Your task to perform on an android device: Is it going to rain tomorrow? Image 0: 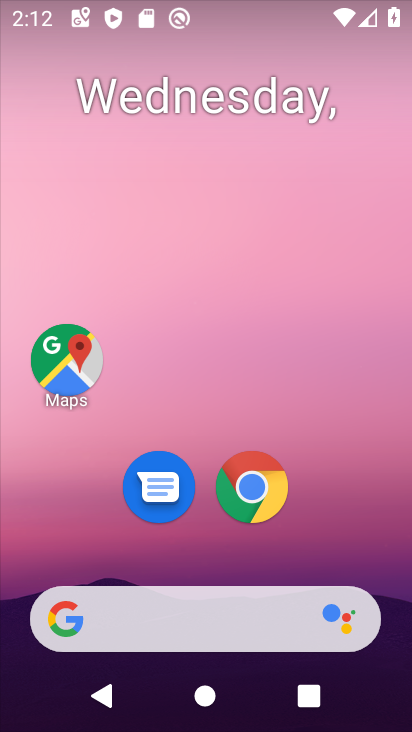
Step 0: click (216, 633)
Your task to perform on an android device: Is it going to rain tomorrow? Image 1: 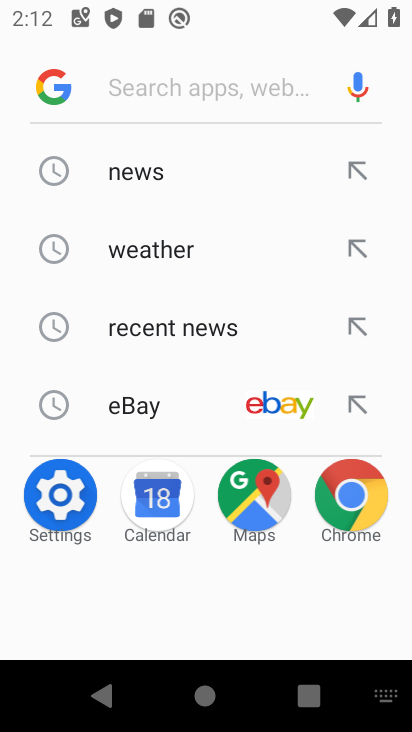
Step 1: click (165, 250)
Your task to perform on an android device: Is it going to rain tomorrow? Image 2: 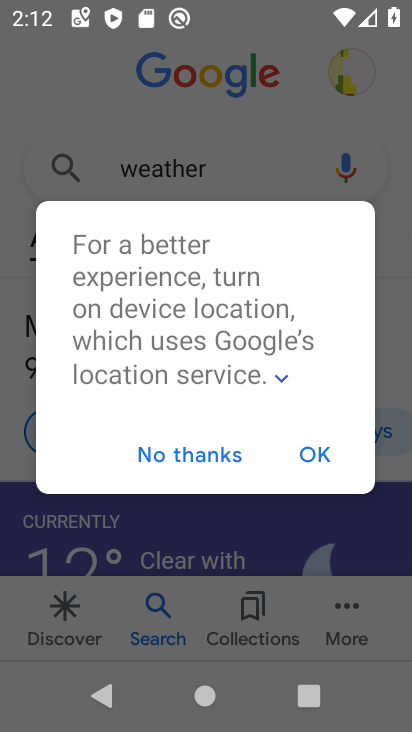
Step 2: click (301, 453)
Your task to perform on an android device: Is it going to rain tomorrow? Image 3: 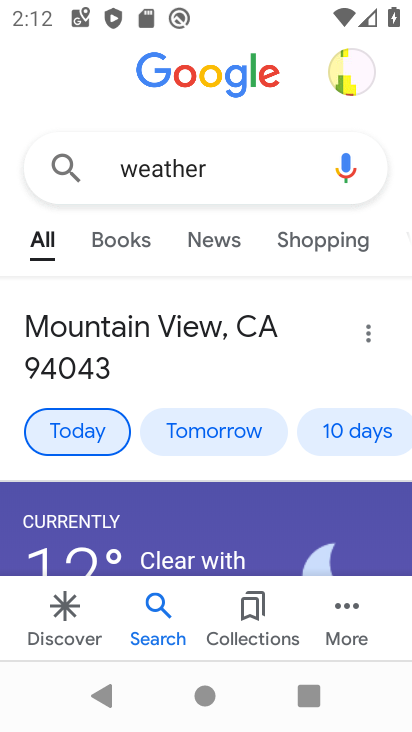
Step 3: click (203, 427)
Your task to perform on an android device: Is it going to rain tomorrow? Image 4: 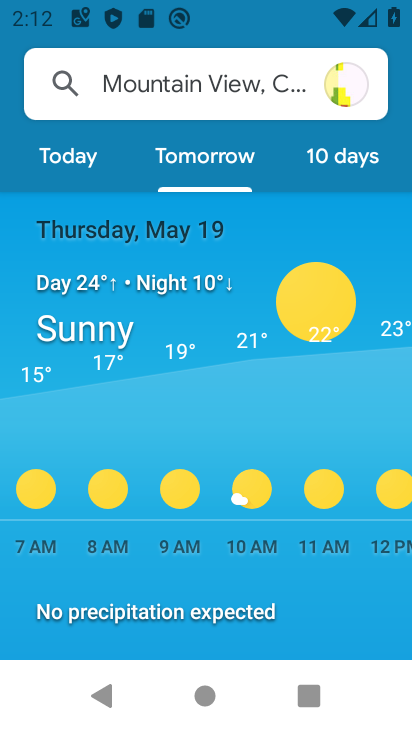
Step 4: task complete